Your task to perform on an android device: toggle pop-ups in chrome Image 0: 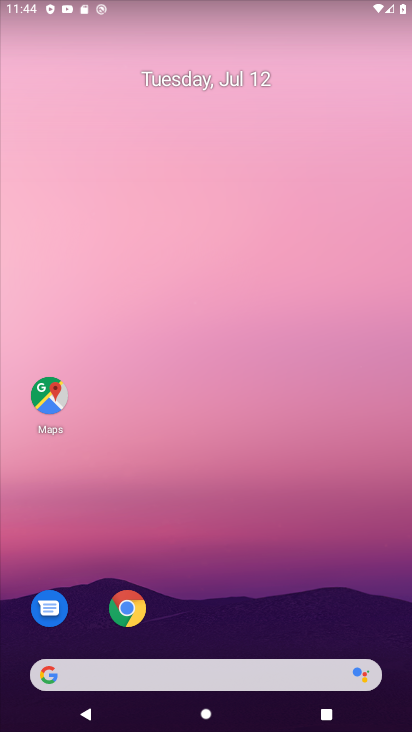
Step 0: click (140, 596)
Your task to perform on an android device: toggle pop-ups in chrome Image 1: 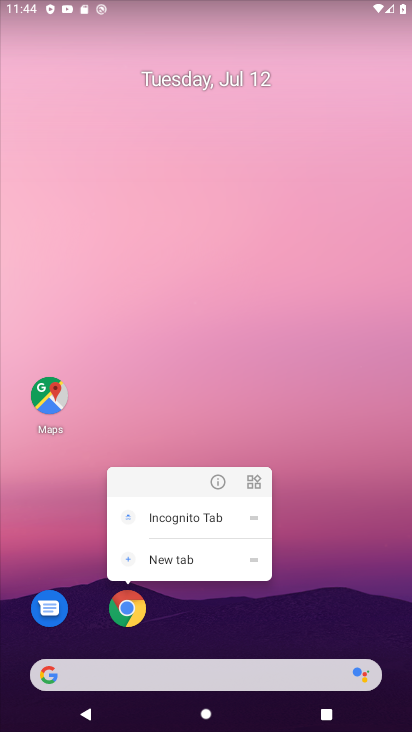
Step 1: click (135, 607)
Your task to perform on an android device: toggle pop-ups in chrome Image 2: 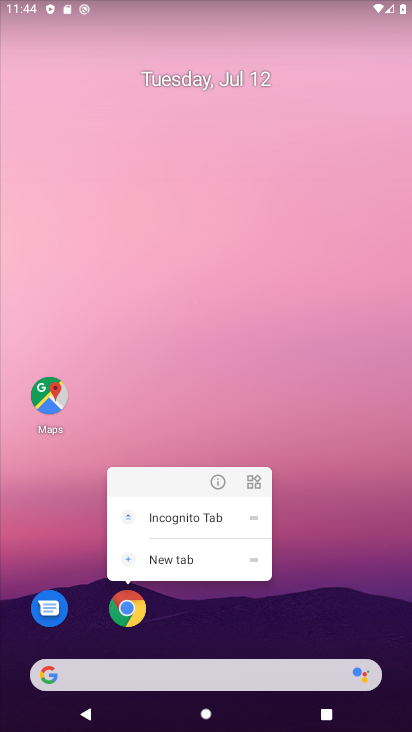
Step 2: click (99, 597)
Your task to perform on an android device: toggle pop-ups in chrome Image 3: 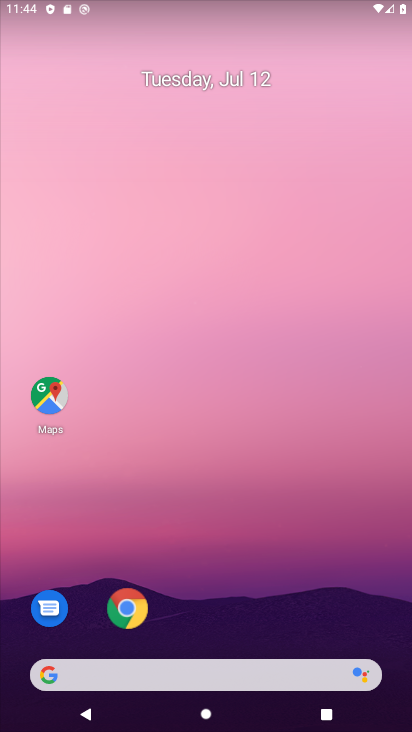
Step 3: click (116, 605)
Your task to perform on an android device: toggle pop-ups in chrome Image 4: 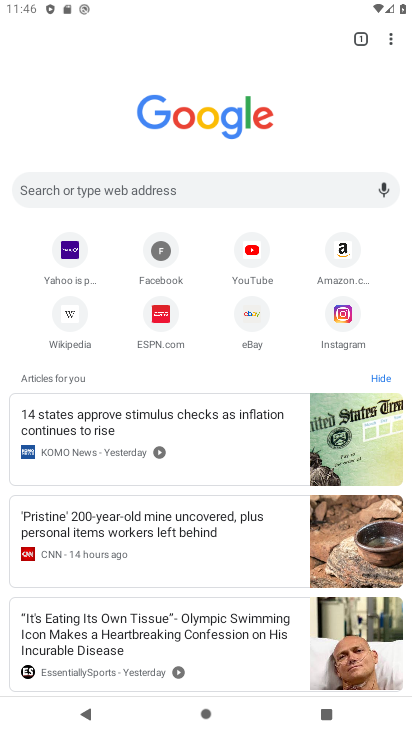
Step 4: drag from (390, 31) to (266, 377)
Your task to perform on an android device: toggle pop-ups in chrome Image 5: 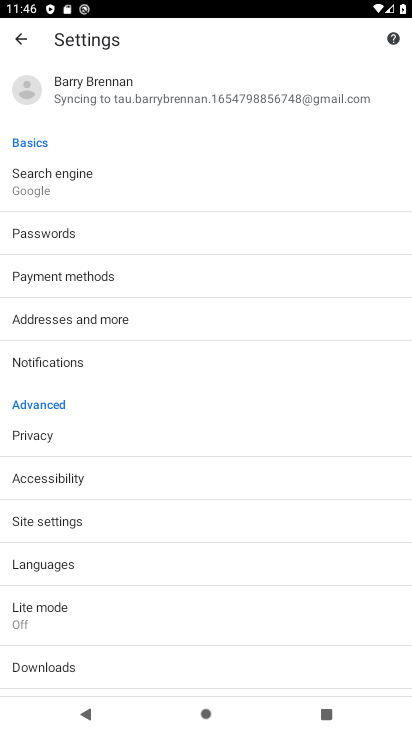
Step 5: click (78, 528)
Your task to perform on an android device: toggle pop-ups in chrome Image 6: 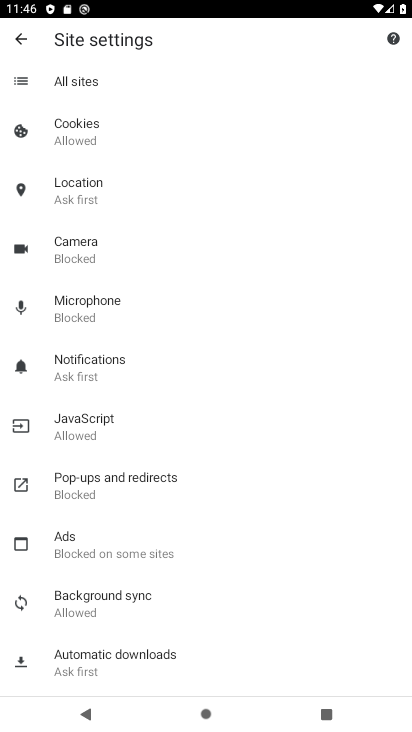
Step 6: click (124, 474)
Your task to perform on an android device: toggle pop-ups in chrome Image 7: 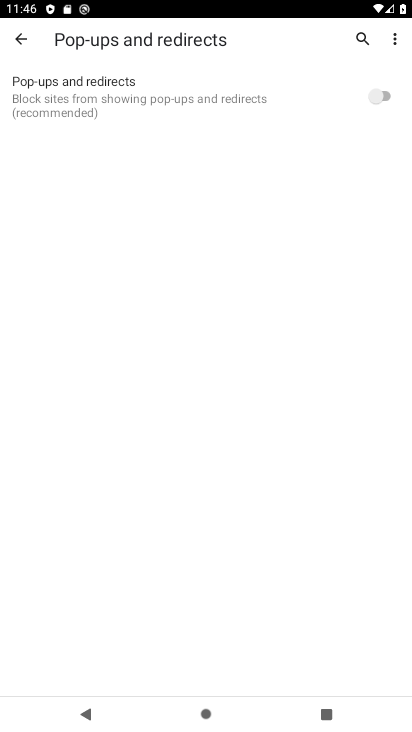
Step 7: click (379, 92)
Your task to perform on an android device: toggle pop-ups in chrome Image 8: 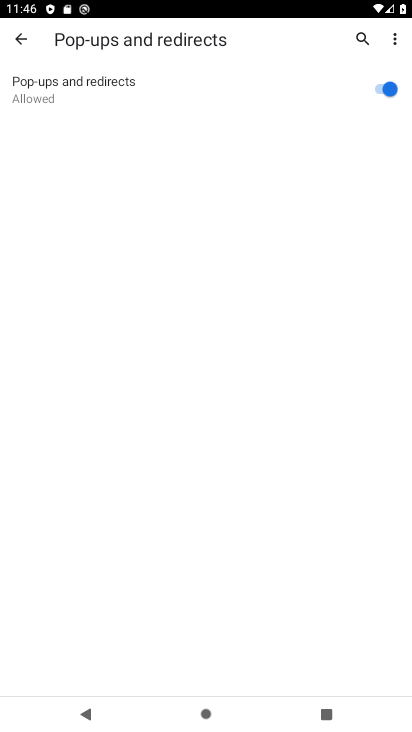
Step 8: task complete